Your task to perform on an android device: visit the assistant section in the google photos Image 0: 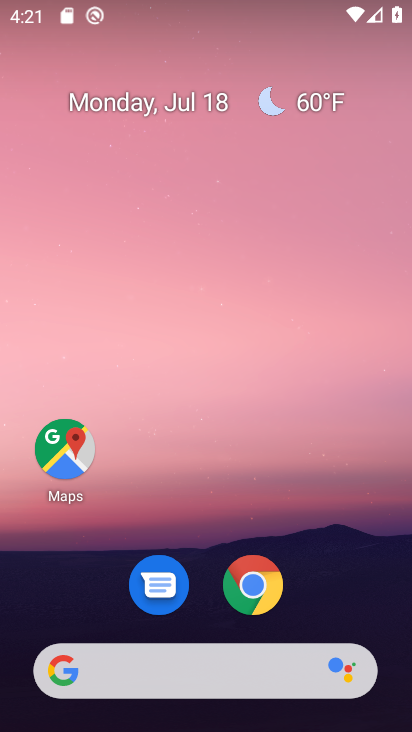
Step 0: drag from (328, 595) to (369, 89)
Your task to perform on an android device: visit the assistant section in the google photos Image 1: 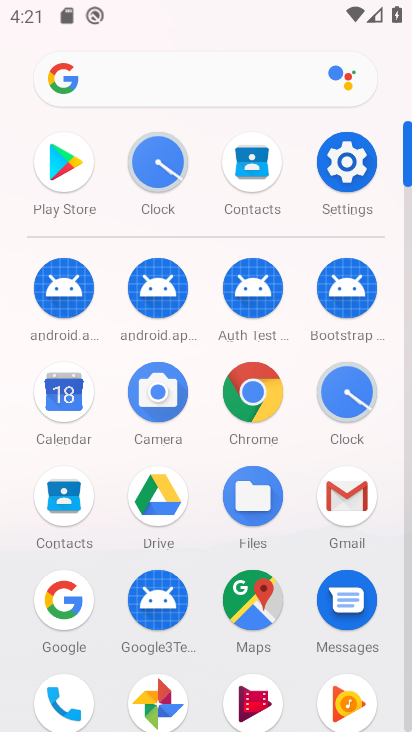
Step 1: click (165, 689)
Your task to perform on an android device: visit the assistant section in the google photos Image 2: 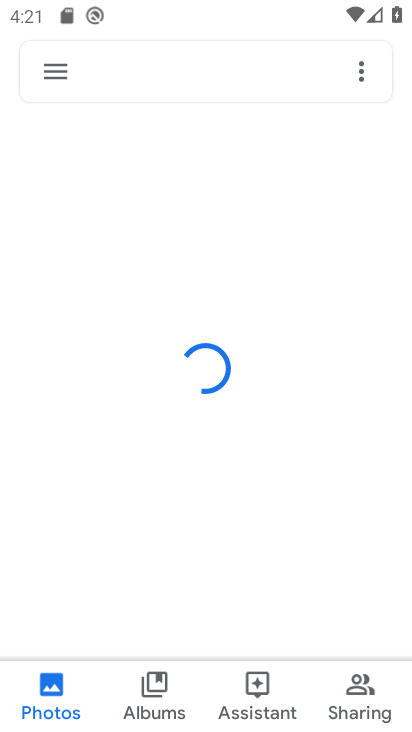
Step 2: click (253, 682)
Your task to perform on an android device: visit the assistant section in the google photos Image 3: 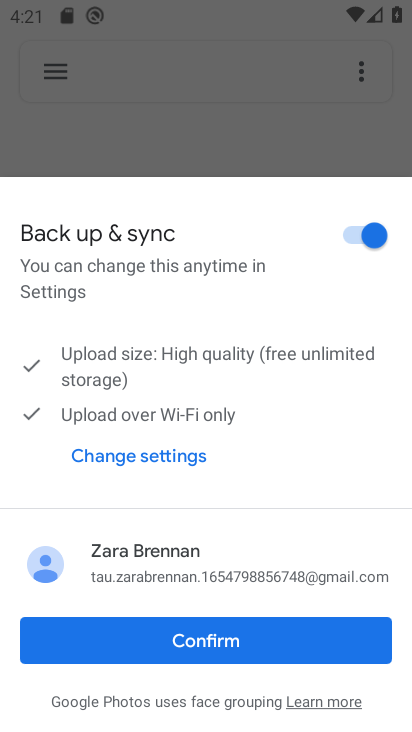
Step 3: click (263, 650)
Your task to perform on an android device: visit the assistant section in the google photos Image 4: 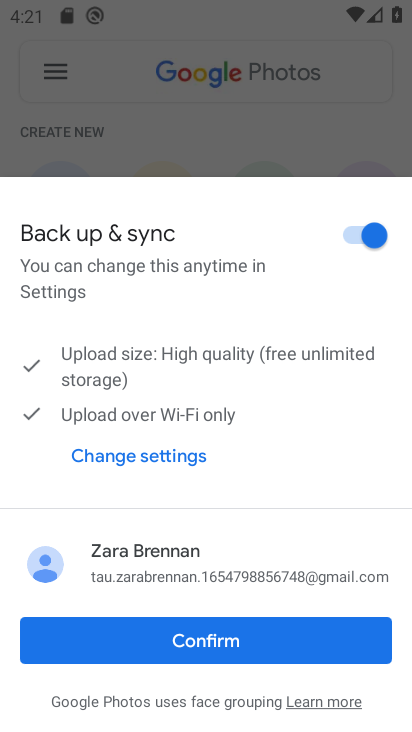
Step 4: click (263, 648)
Your task to perform on an android device: visit the assistant section in the google photos Image 5: 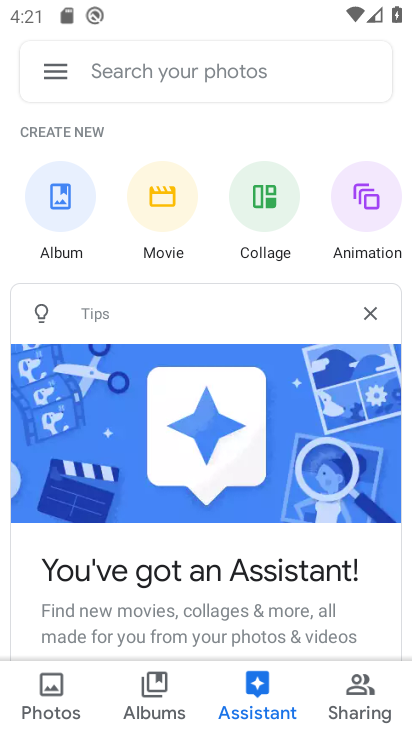
Step 5: click (255, 705)
Your task to perform on an android device: visit the assistant section in the google photos Image 6: 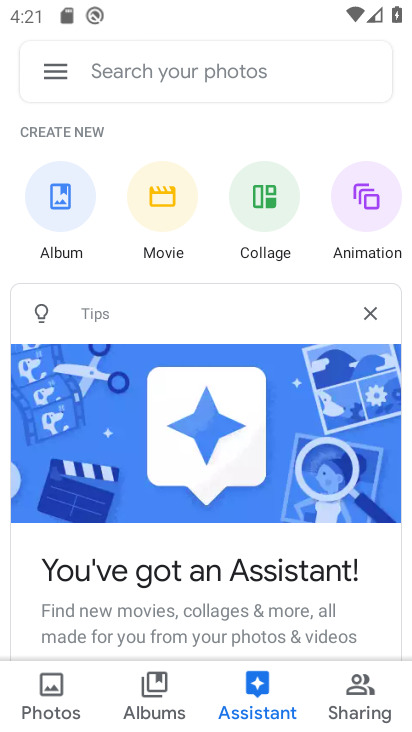
Step 6: task complete